Your task to perform on an android device: Open calendar and show me the second week of next month Image 0: 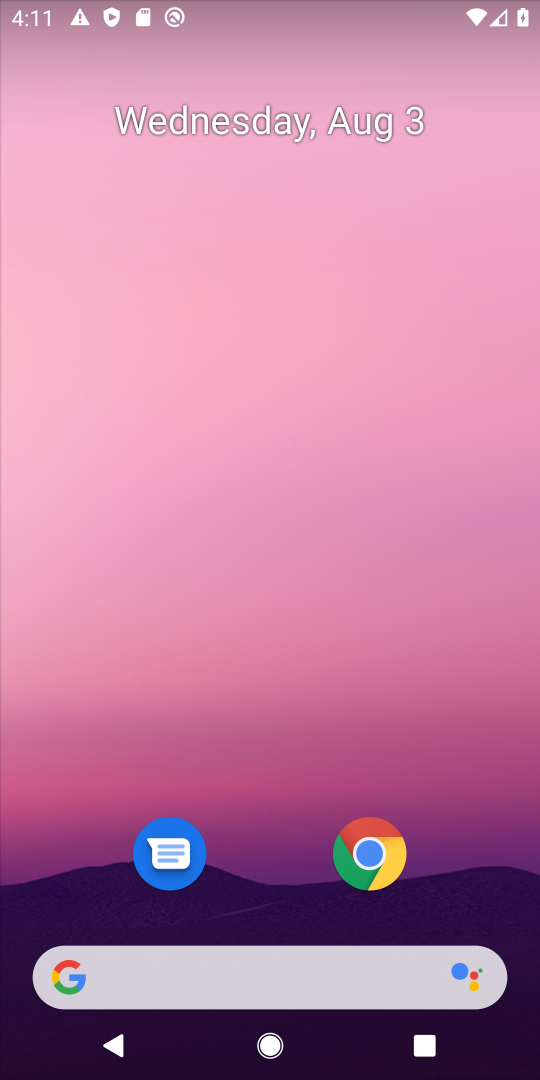
Step 0: drag from (246, 907) to (264, 5)
Your task to perform on an android device: Open calendar and show me the second week of next month Image 1: 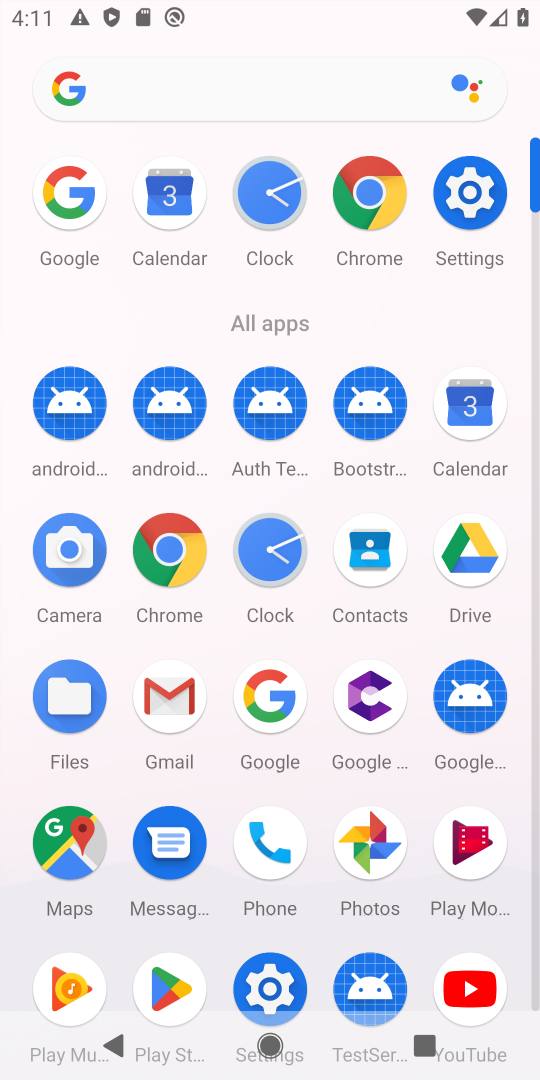
Step 1: click (474, 410)
Your task to perform on an android device: Open calendar and show me the second week of next month Image 2: 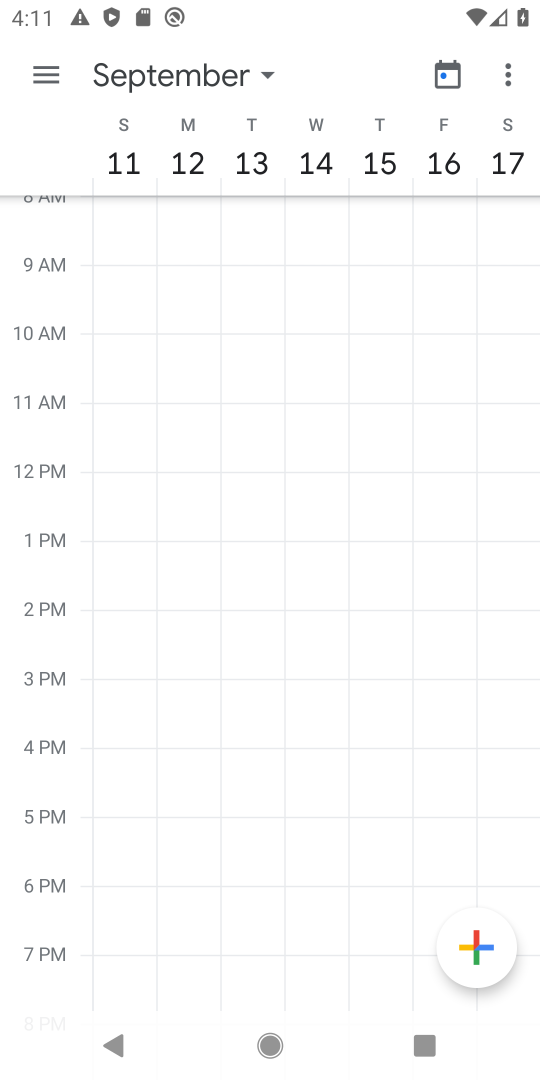
Step 2: click (267, 80)
Your task to perform on an android device: Open calendar and show me the second week of next month Image 3: 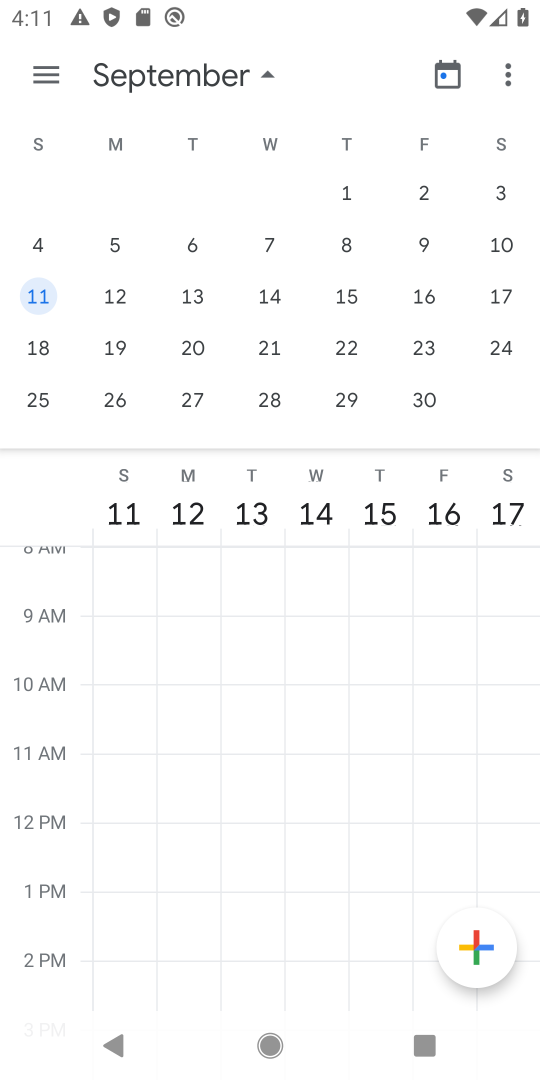
Step 3: click (110, 287)
Your task to perform on an android device: Open calendar and show me the second week of next month Image 4: 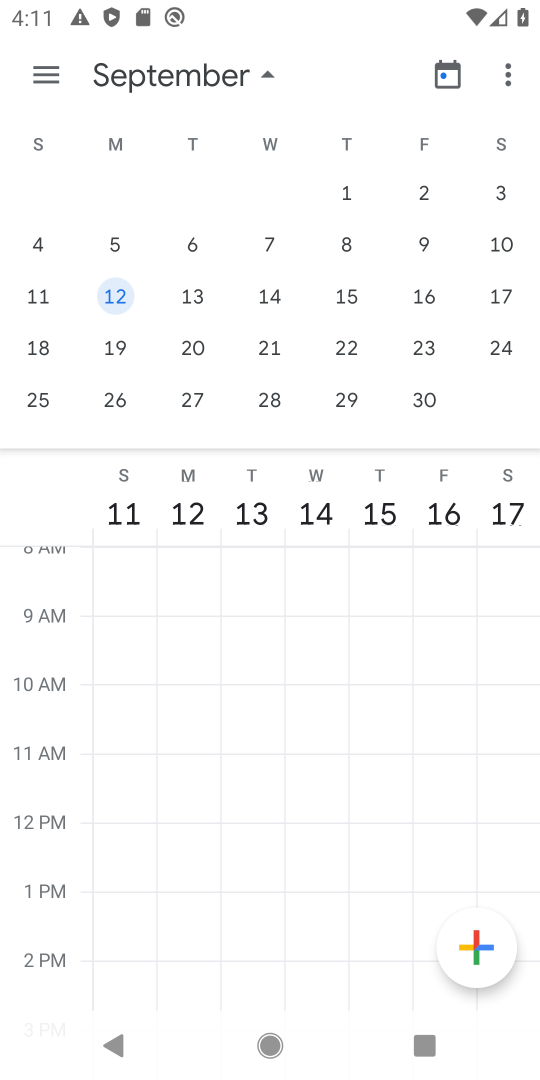
Step 4: click (118, 292)
Your task to perform on an android device: Open calendar and show me the second week of next month Image 5: 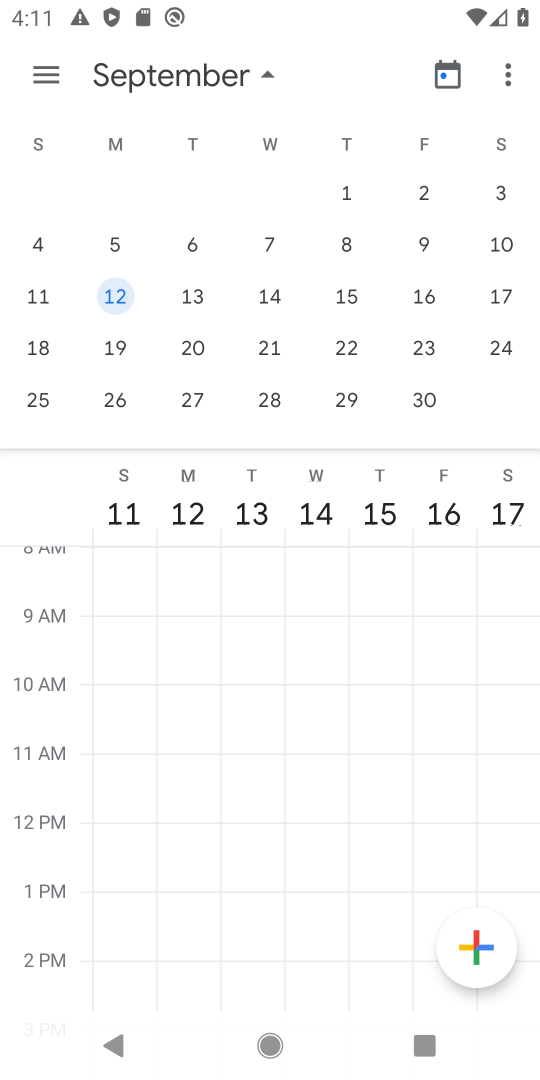
Step 5: click (32, 66)
Your task to perform on an android device: Open calendar and show me the second week of next month Image 6: 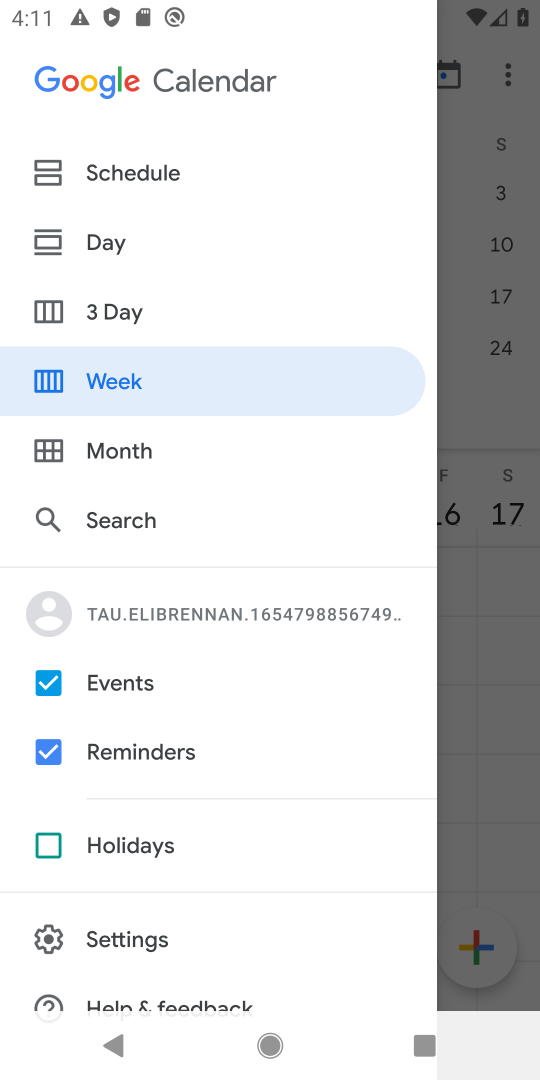
Step 6: click (117, 384)
Your task to perform on an android device: Open calendar and show me the second week of next month Image 7: 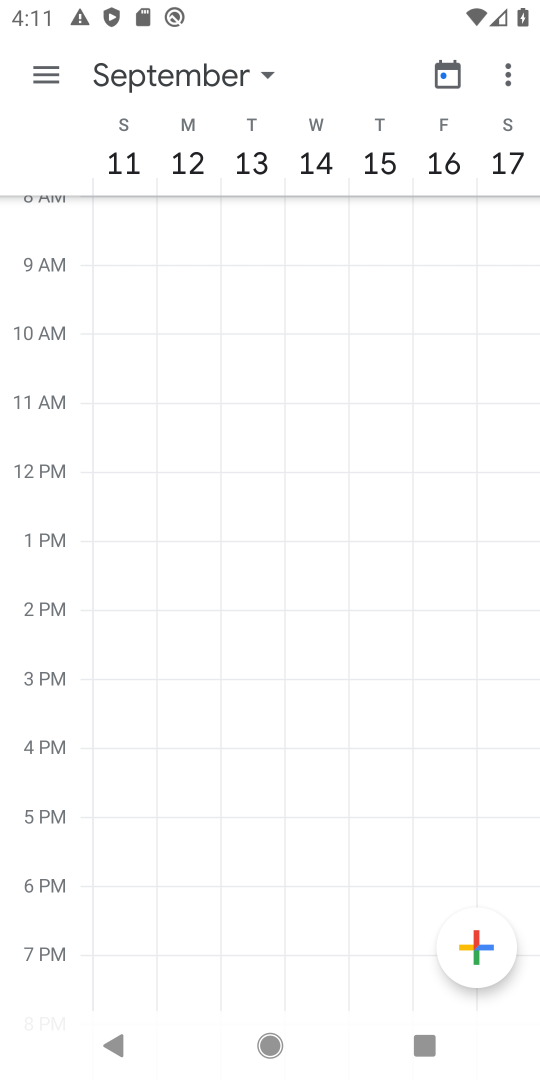
Step 7: task complete